Your task to perform on an android device: When is my next meeting? Image 0: 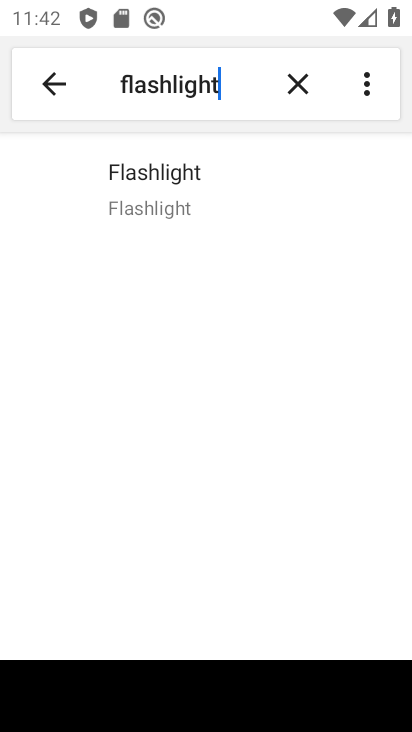
Step 0: press back button
Your task to perform on an android device: When is my next meeting? Image 1: 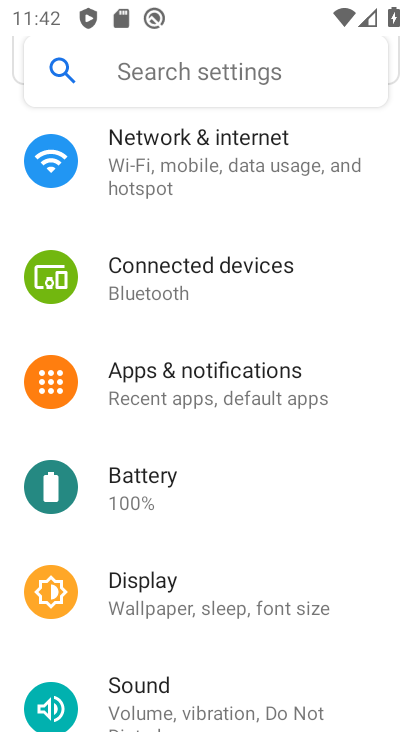
Step 1: press back button
Your task to perform on an android device: When is my next meeting? Image 2: 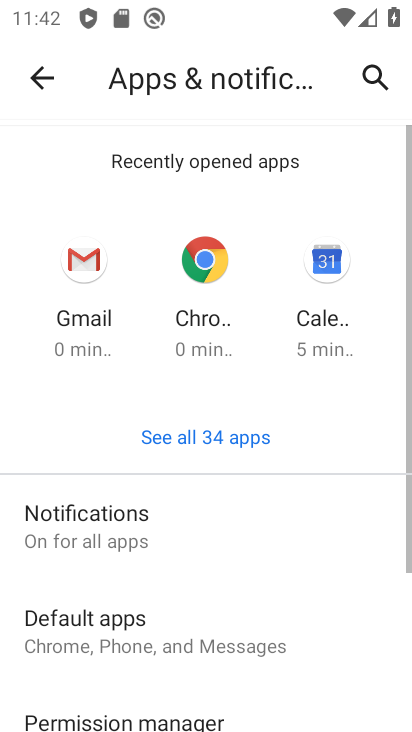
Step 2: press back button
Your task to perform on an android device: When is my next meeting? Image 3: 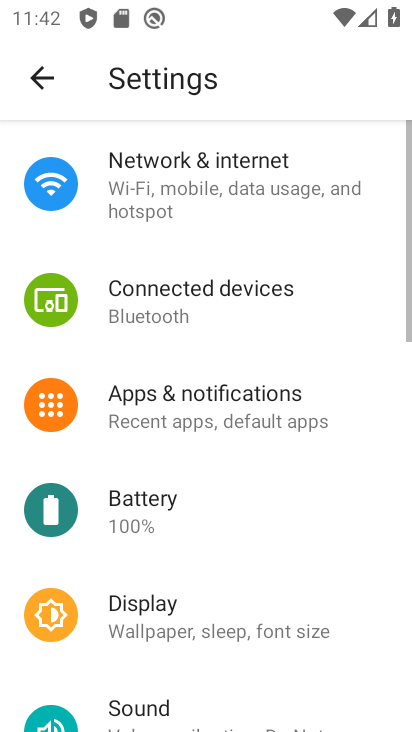
Step 3: press back button
Your task to perform on an android device: When is my next meeting? Image 4: 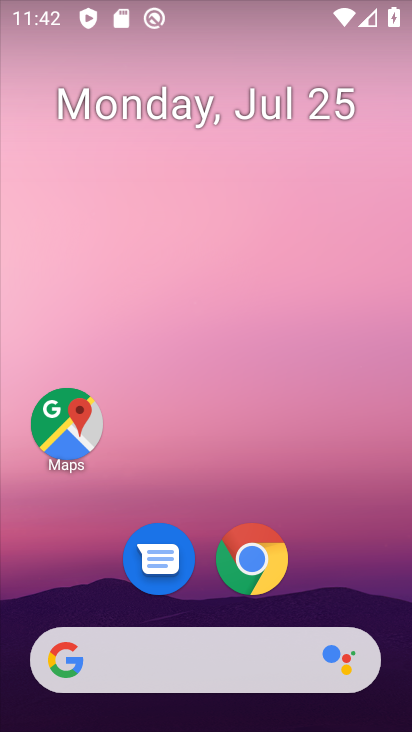
Step 4: drag from (169, 623) to (270, 4)
Your task to perform on an android device: When is my next meeting? Image 5: 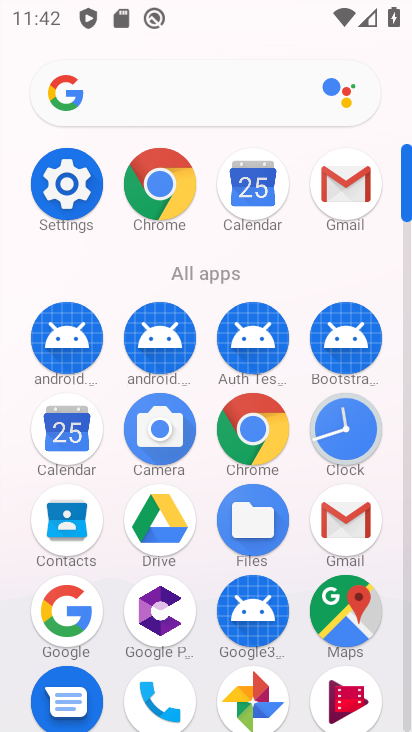
Step 5: click (61, 425)
Your task to perform on an android device: When is my next meeting? Image 6: 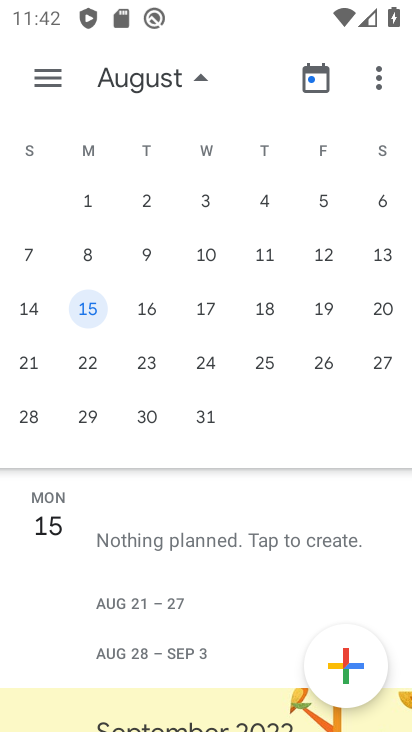
Step 6: drag from (214, 656) to (247, 414)
Your task to perform on an android device: When is my next meeting? Image 7: 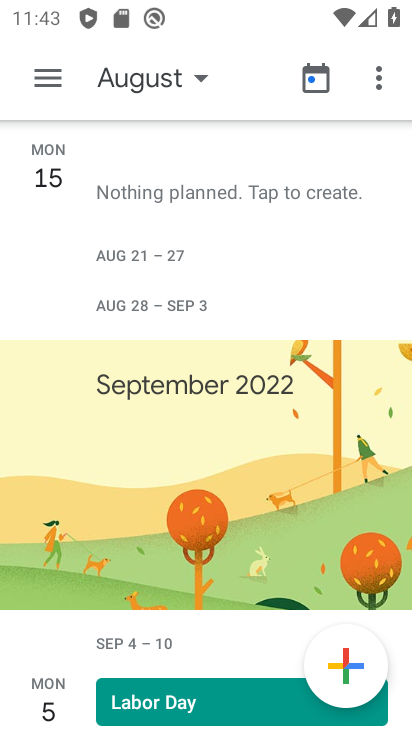
Step 7: click (143, 79)
Your task to perform on an android device: When is my next meeting? Image 8: 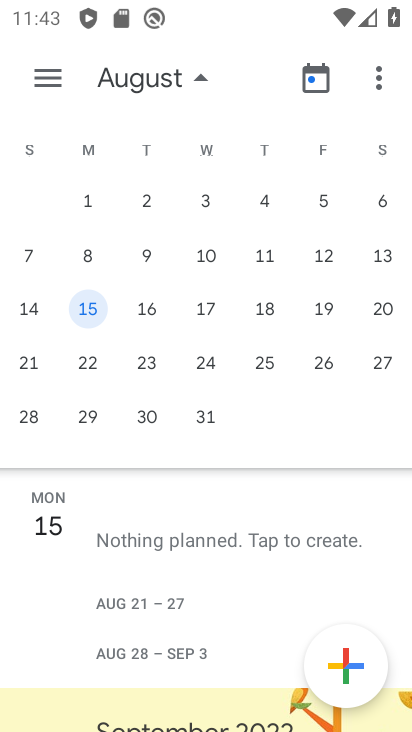
Step 8: drag from (63, 358) to (407, 375)
Your task to perform on an android device: When is my next meeting? Image 9: 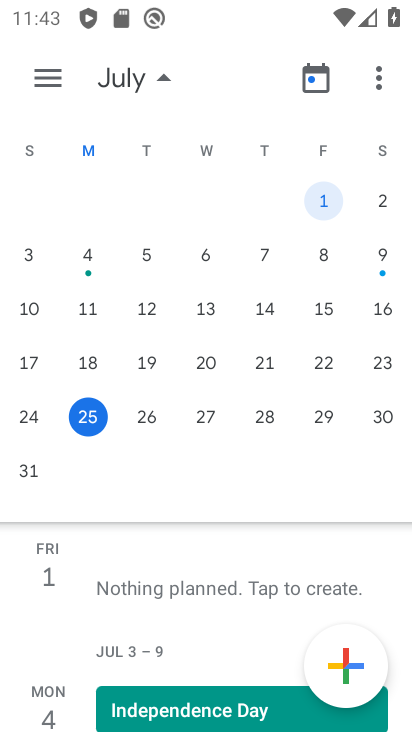
Step 9: click (82, 413)
Your task to perform on an android device: When is my next meeting? Image 10: 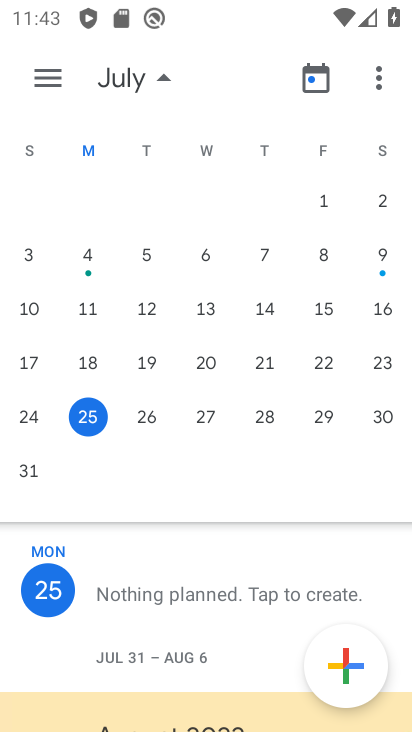
Step 10: task complete